Your task to perform on an android device: clear history in the chrome app Image 0: 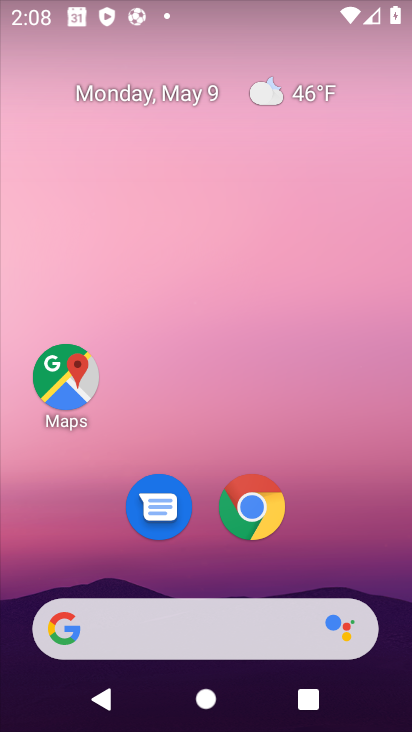
Step 0: click (256, 505)
Your task to perform on an android device: clear history in the chrome app Image 1: 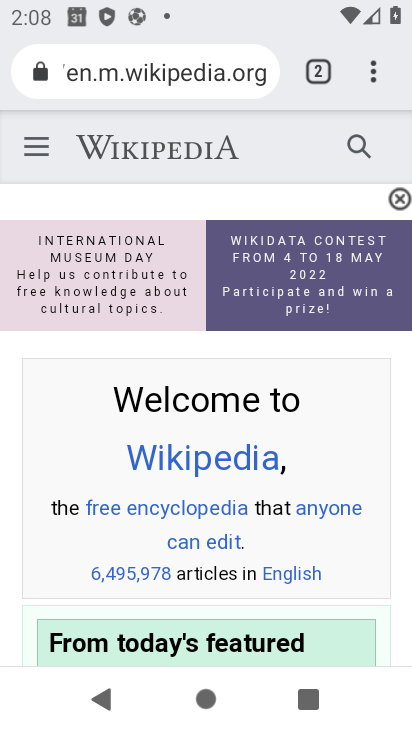
Step 1: click (362, 62)
Your task to perform on an android device: clear history in the chrome app Image 2: 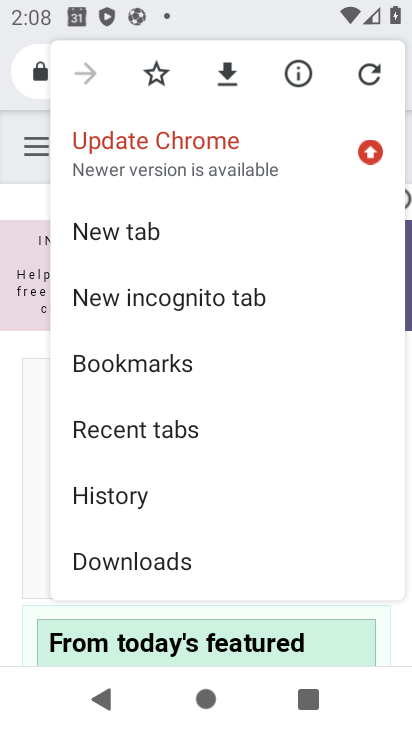
Step 2: click (105, 486)
Your task to perform on an android device: clear history in the chrome app Image 3: 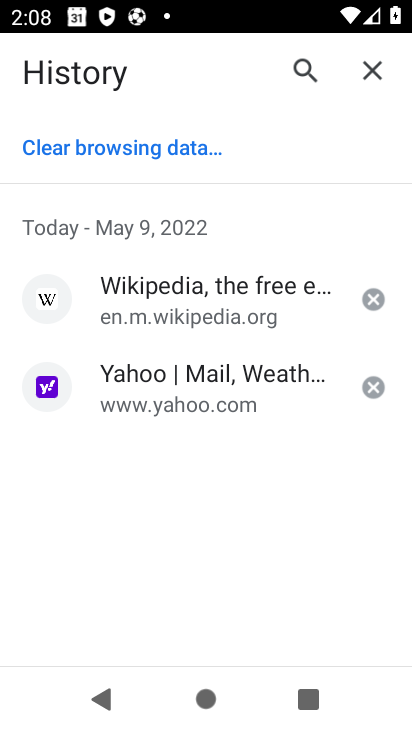
Step 3: click (121, 143)
Your task to perform on an android device: clear history in the chrome app Image 4: 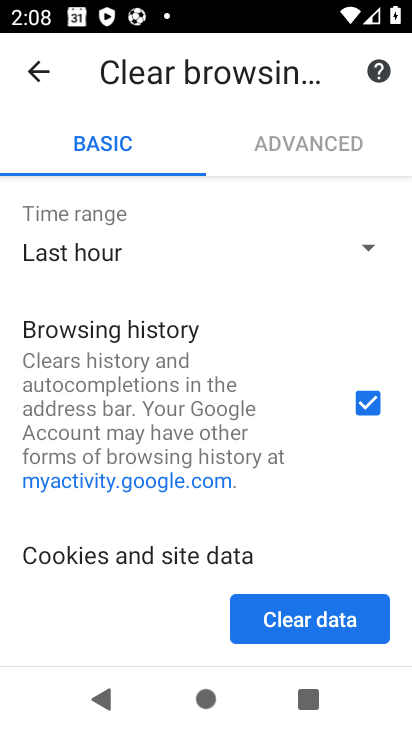
Step 4: click (309, 617)
Your task to perform on an android device: clear history in the chrome app Image 5: 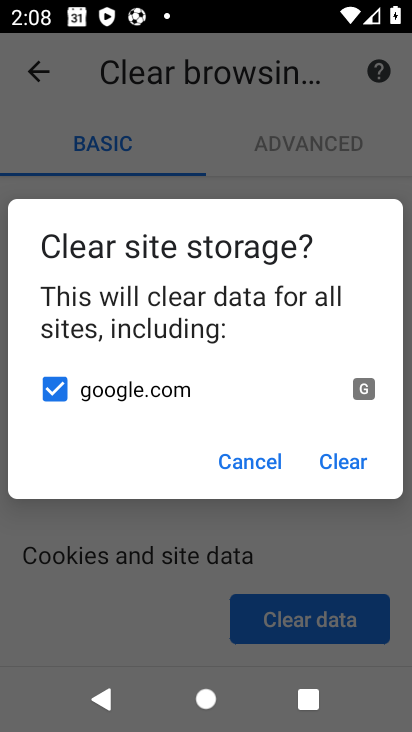
Step 5: click (327, 461)
Your task to perform on an android device: clear history in the chrome app Image 6: 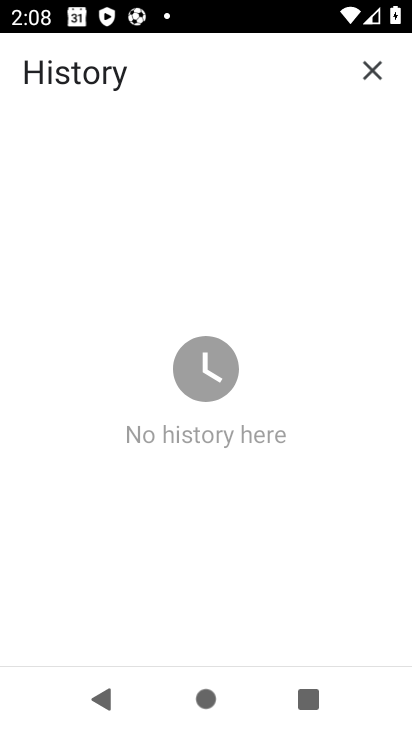
Step 6: task complete